Your task to perform on an android device: Search for pizza restaurants on Maps Image 0: 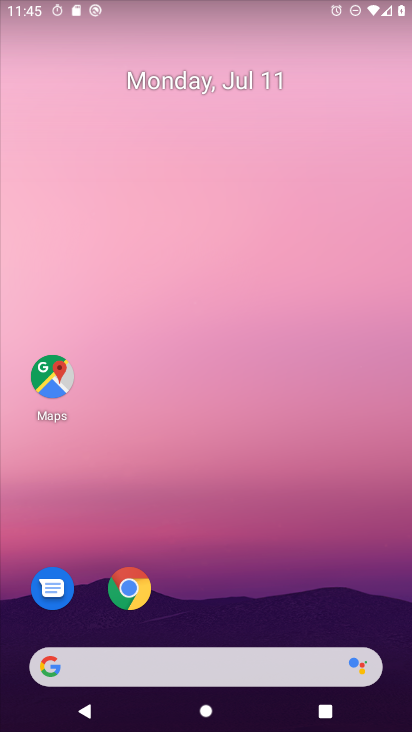
Step 0: click (49, 374)
Your task to perform on an android device: Search for pizza restaurants on Maps Image 1: 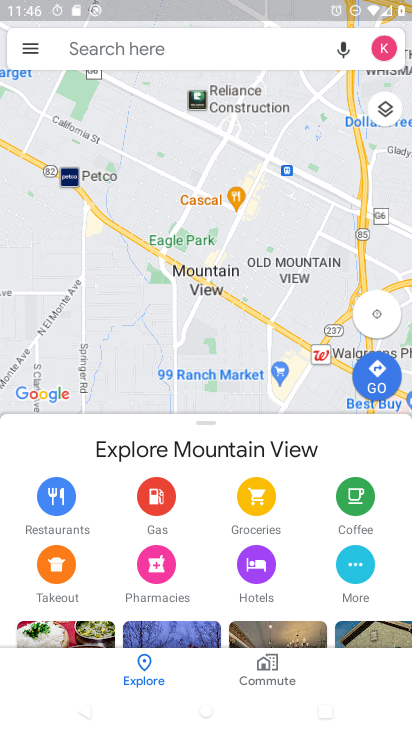
Step 1: click (131, 56)
Your task to perform on an android device: Search for pizza restaurants on Maps Image 2: 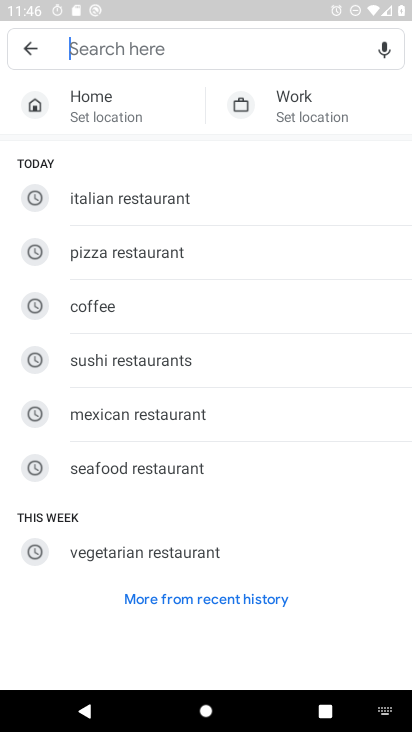
Step 2: click (148, 247)
Your task to perform on an android device: Search for pizza restaurants on Maps Image 3: 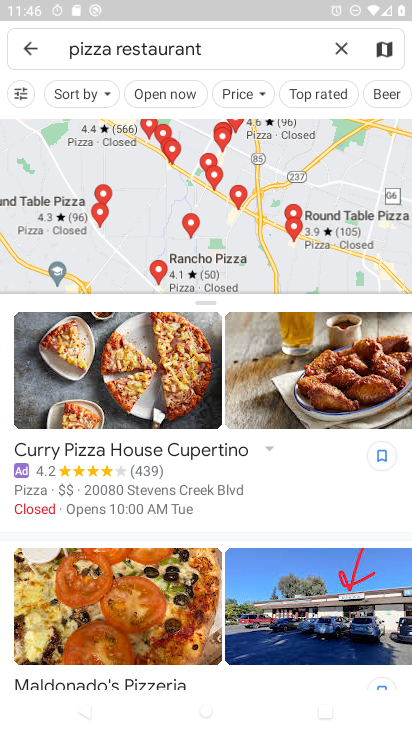
Step 3: task complete